Your task to perform on an android device: What is the capital of Mexico? Image 0: 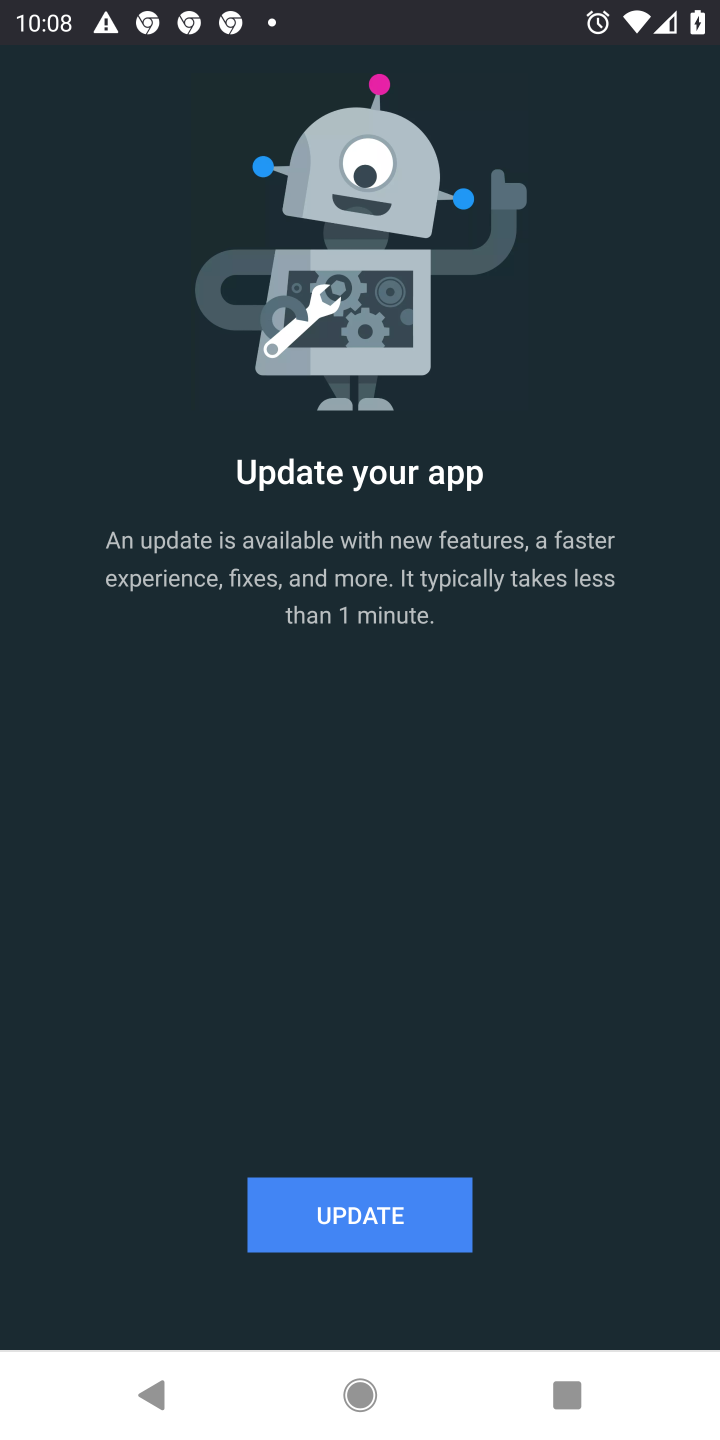
Step 0: press home button
Your task to perform on an android device: What is the capital of Mexico? Image 1: 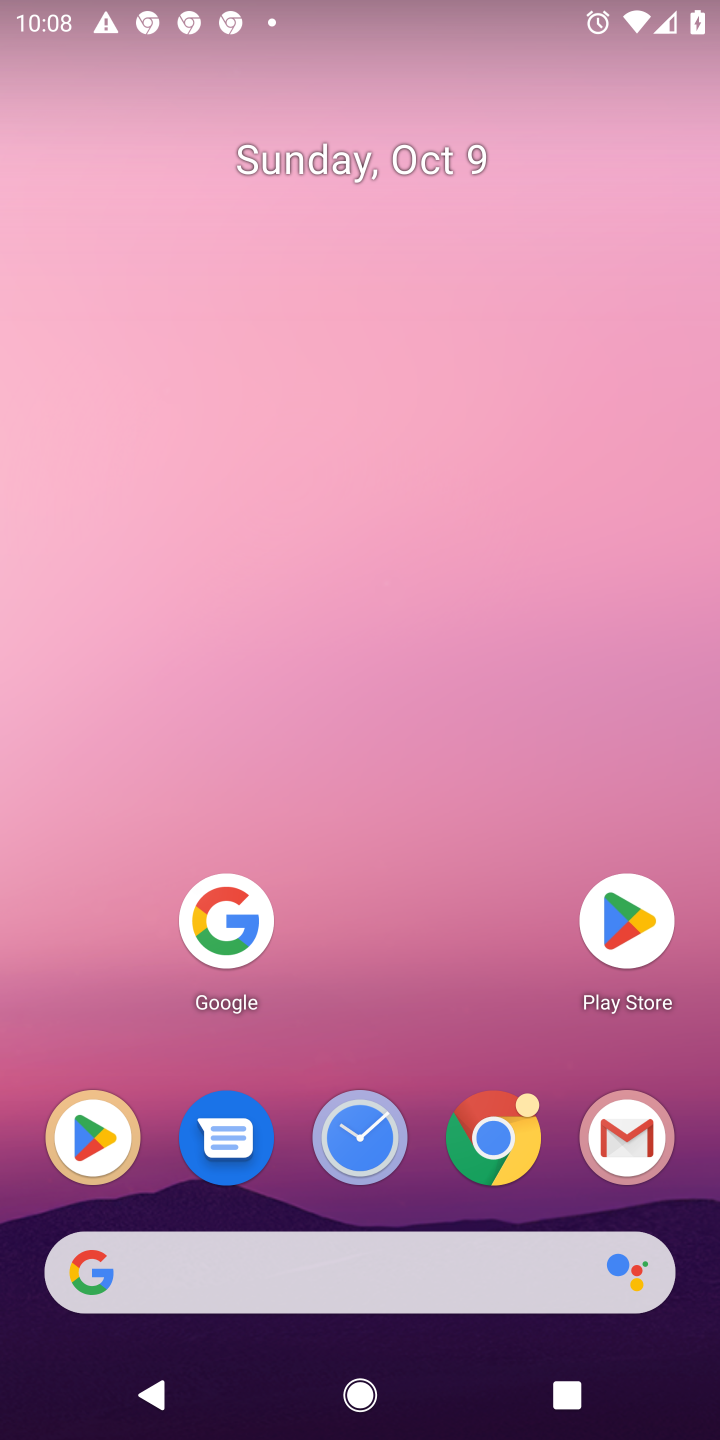
Step 1: click (202, 932)
Your task to perform on an android device: What is the capital of Mexico? Image 2: 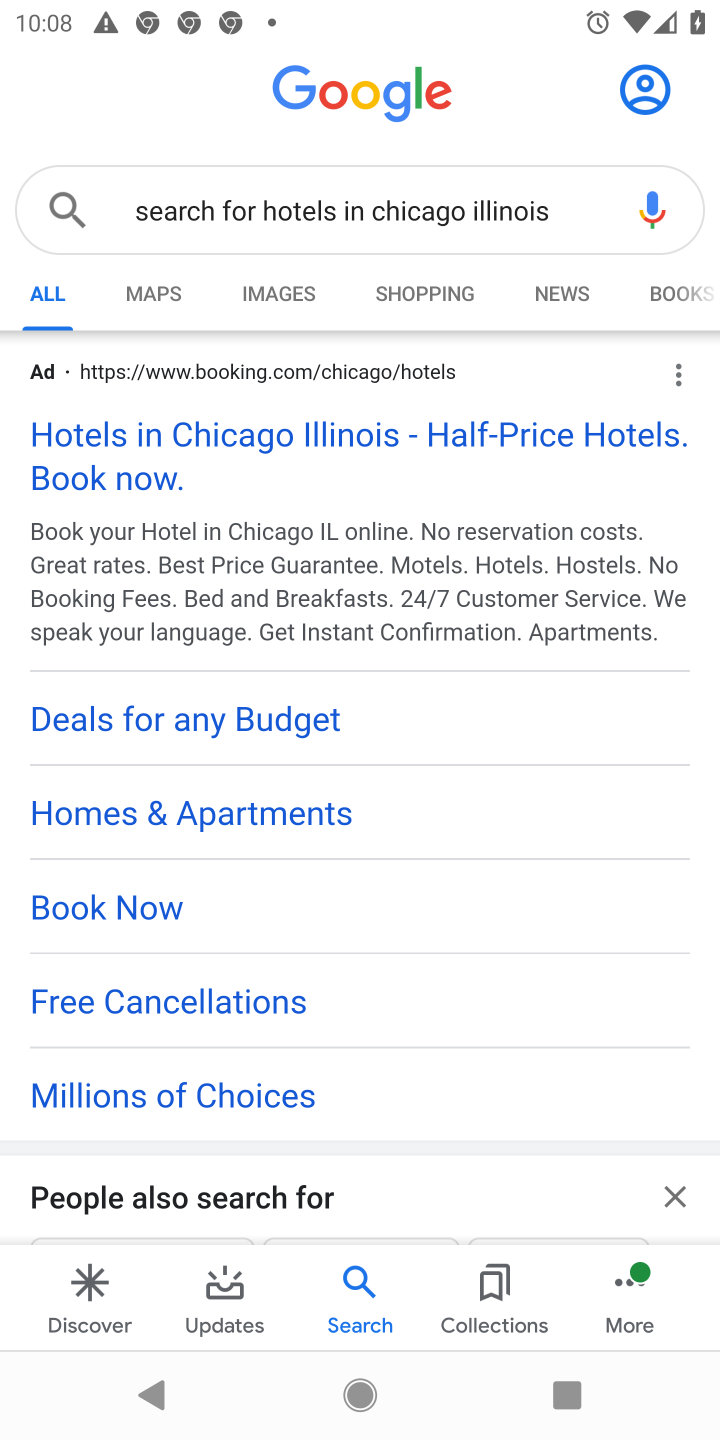
Step 2: click (414, 198)
Your task to perform on an android device: What is the capital of Mexico? Image 3: 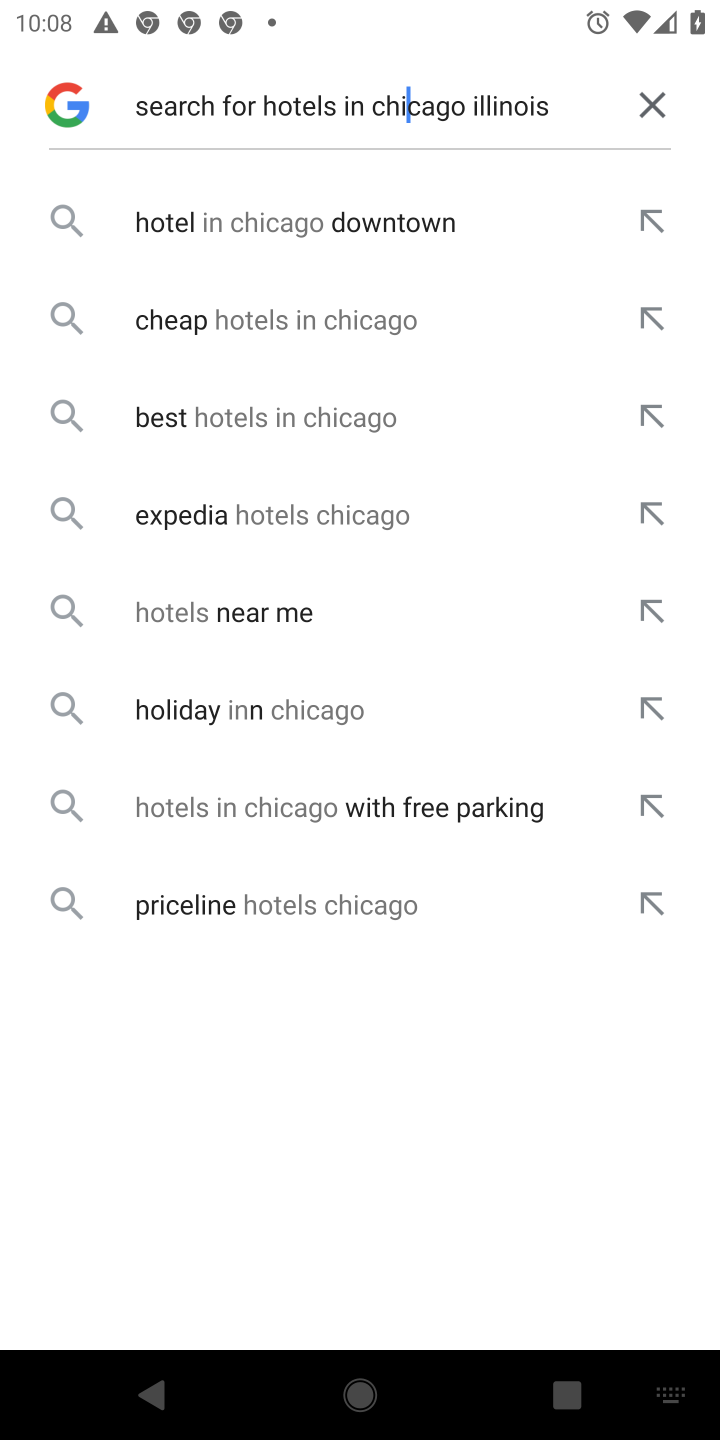
Step 3: click (654, 102)
Your task to perform on an android device: What is the capital of Mexico? Image 4: 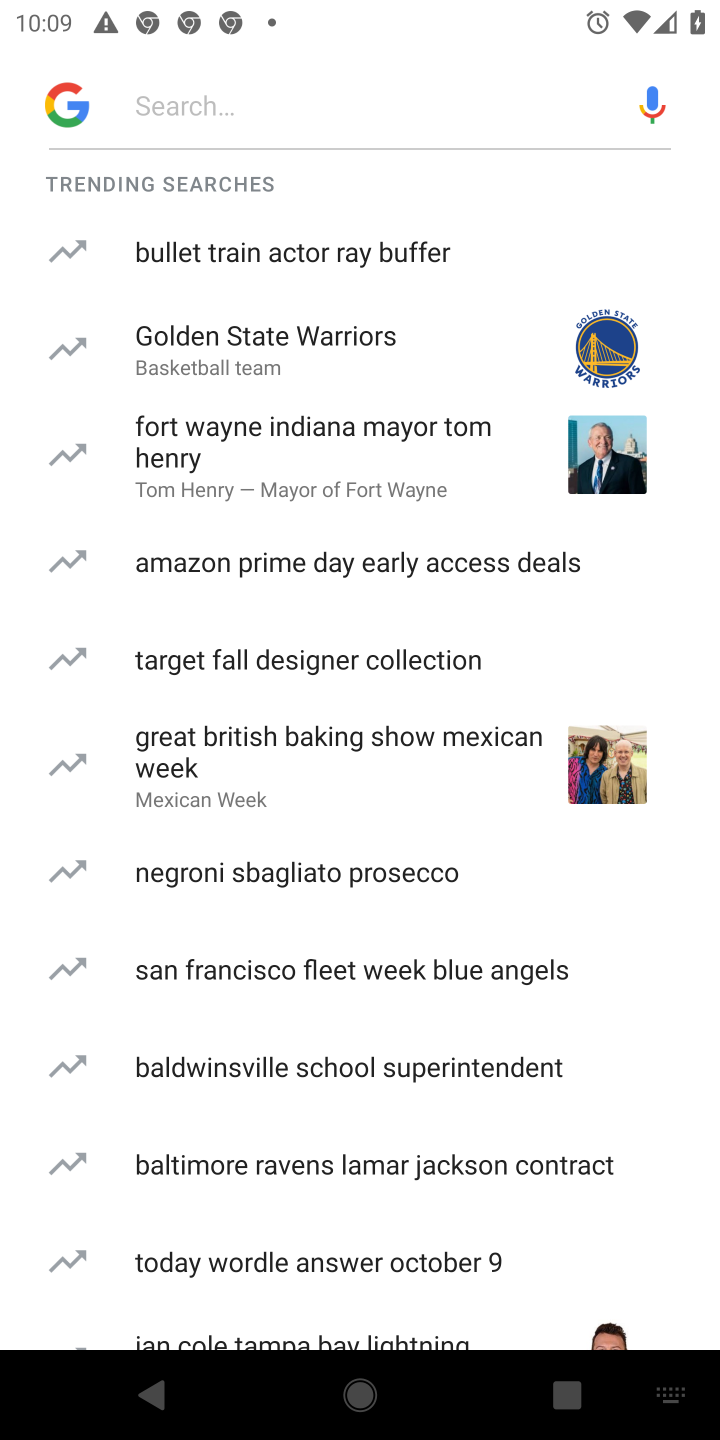
Step 4: click (298, 90)
Your task to perform on an android device: What is the capital of Mexico? Image 5: 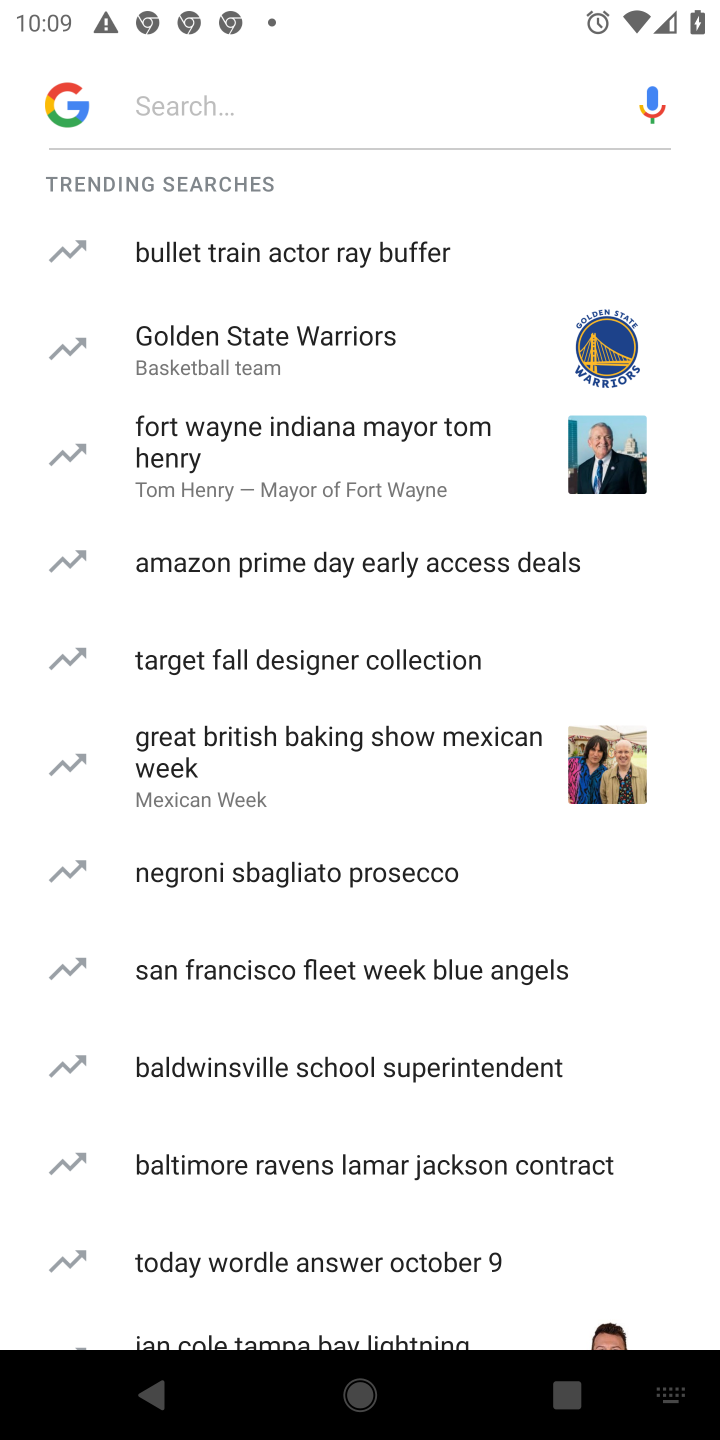
Step 5: type "What is the capital of Mexico? "
Your task to perform on an android device: What is the capital of Mexico? Image 6: 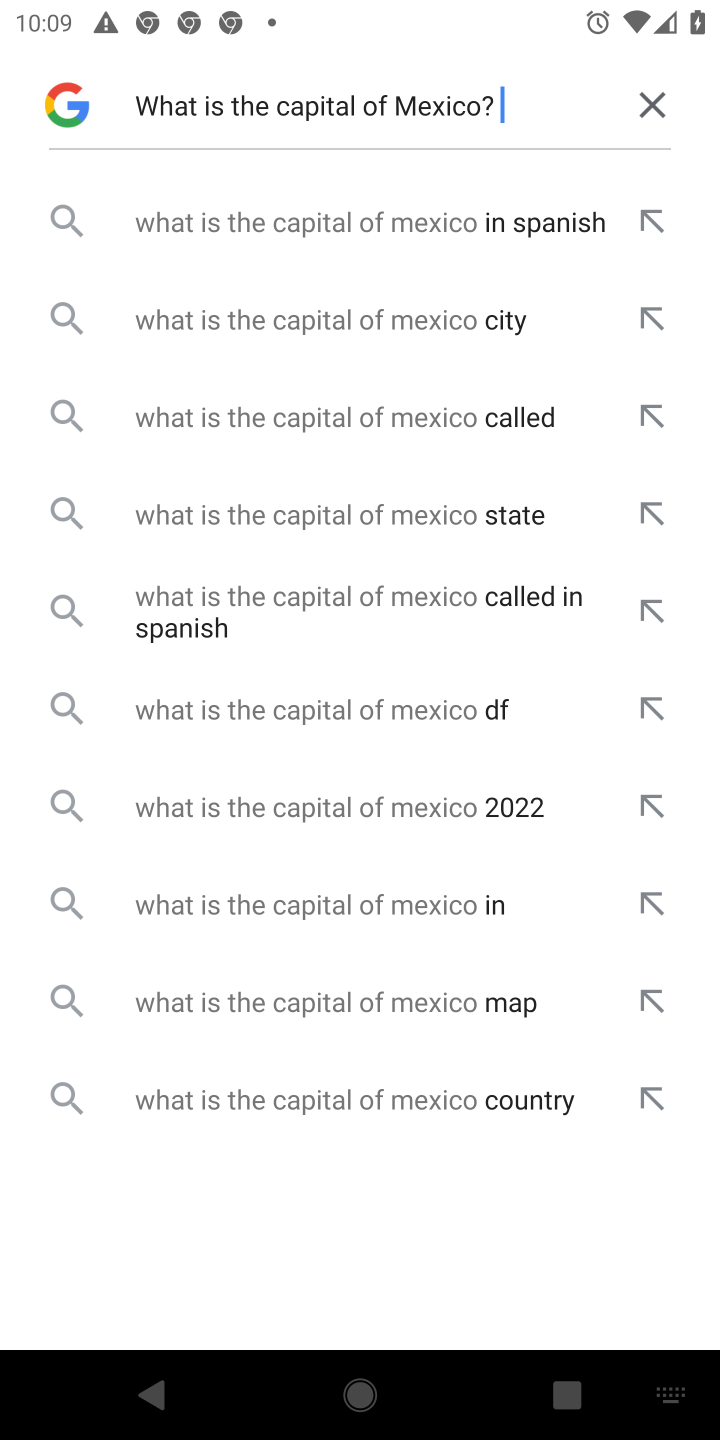
Step 6: click (322, 304)
Your task to perform on an android device: What is the capital of Mexico? Image 7: 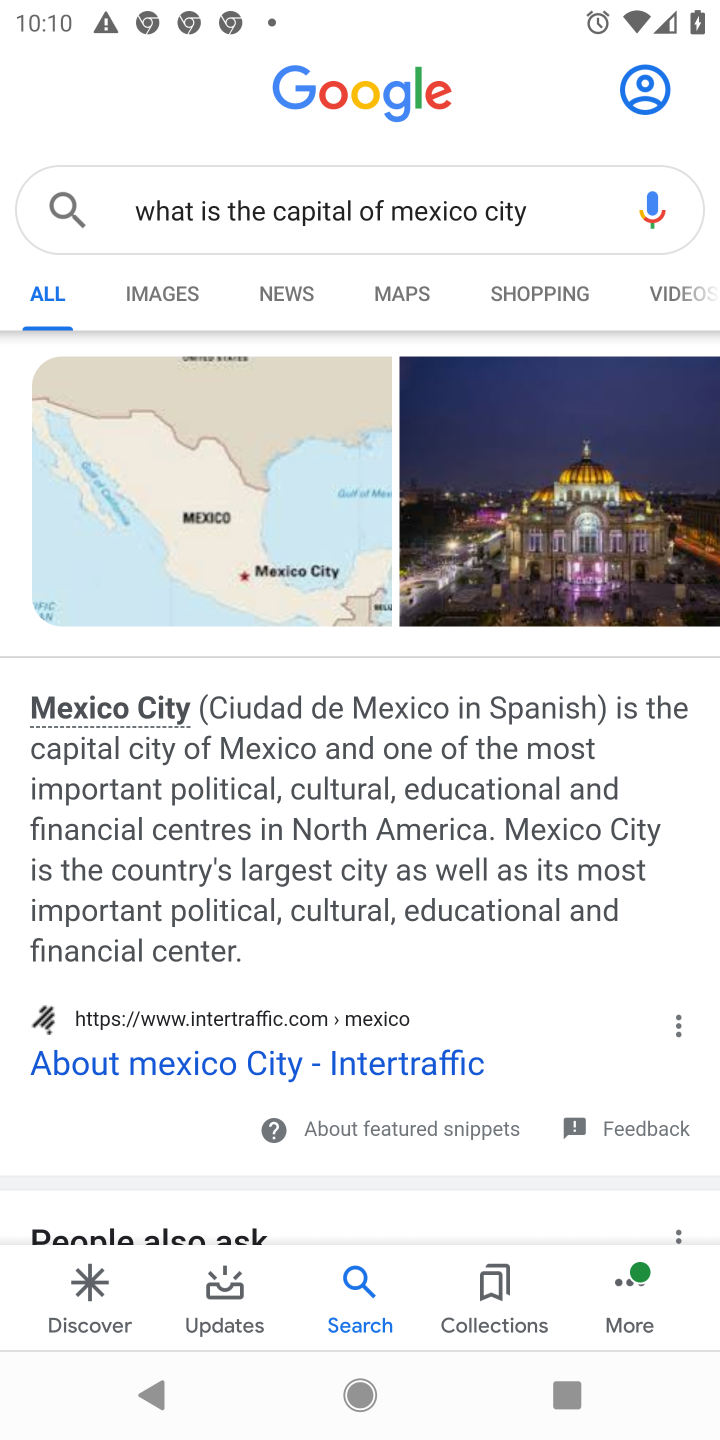
Step 7: task complete